Your task to perform on an android device: Go to Yahoo.com Image 0: 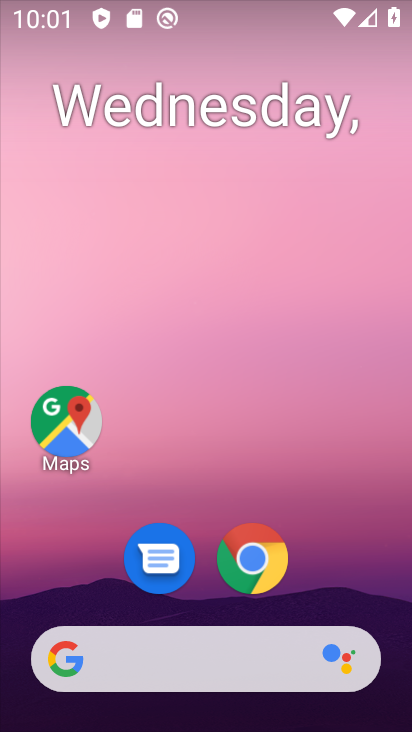
Step 0: click (192, 426)
Your task to perform on an android device: Go to Yahoo.com Image 1: 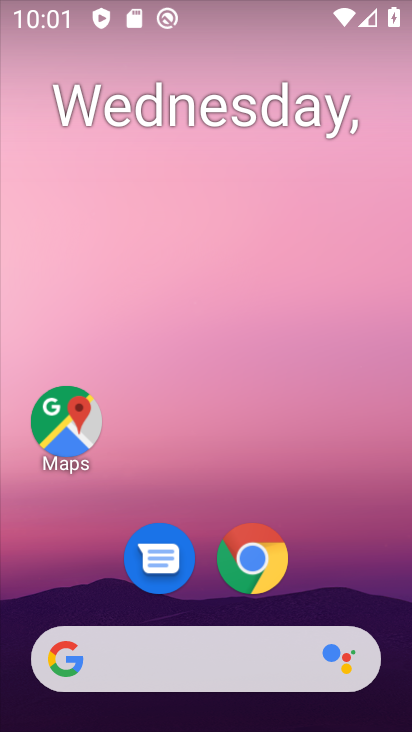
Step 1: click (252, 581)
Your task to perform on an android device: Go to Yahoo.com Image 2: 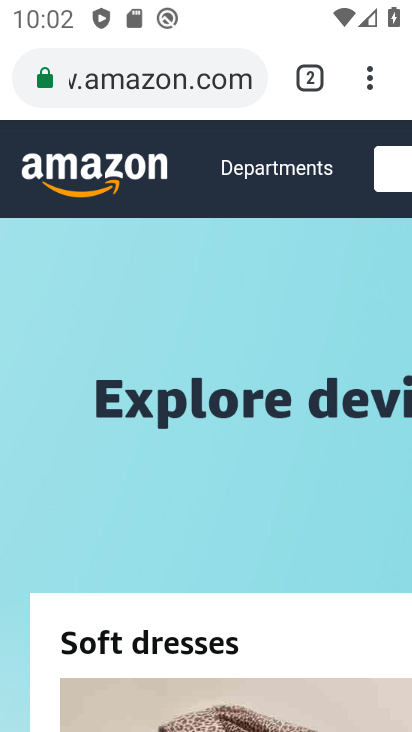
Step 2: click (310, 85)
Your task to perform on an android device: Go to Yahoo.com Image 3: 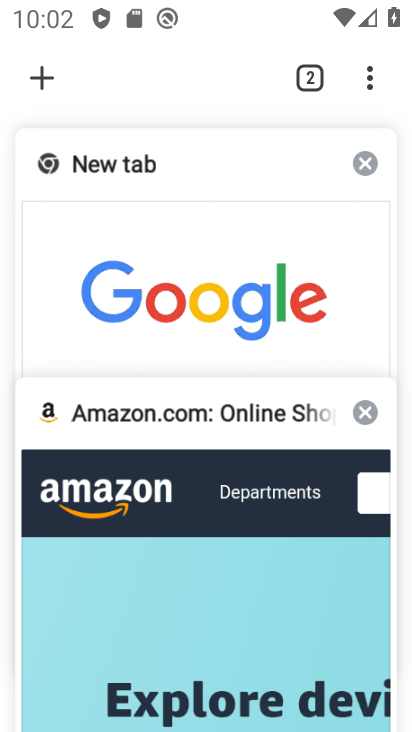
Step 3: click (365, 412)
Your task to perform on an android device: Go to Yahoo.com Image 4: 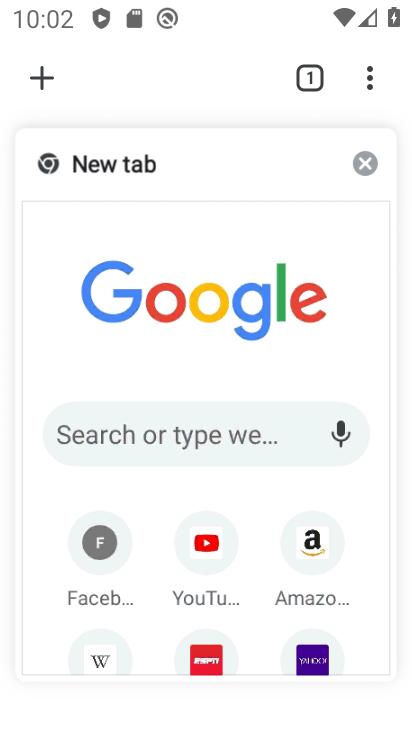
Step 4: drag from (11, 537) to (159, 199)
Your task to perform on an android device: Go to Yahoo.com Image 5: 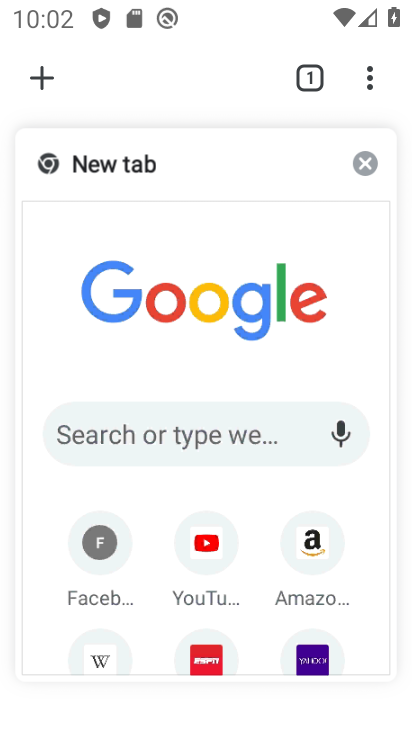
Step 5: click (289, 653)
Your task to perform on an android device: Go to Yahoo.com Image 6: 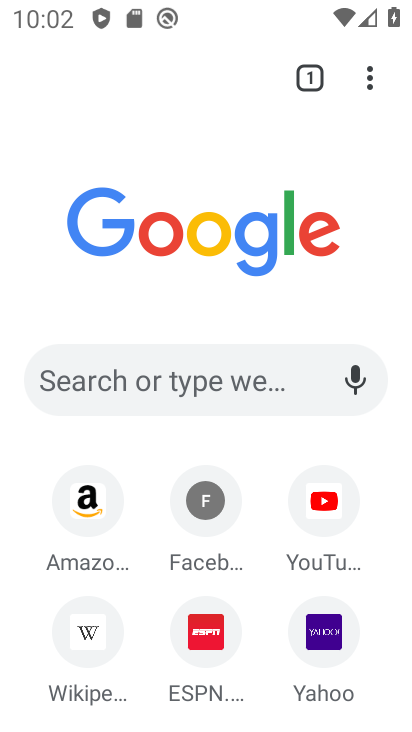
Step 6: click (303, 661)
Your task to perform on an android device: Go to Yahoo.com Image 7: 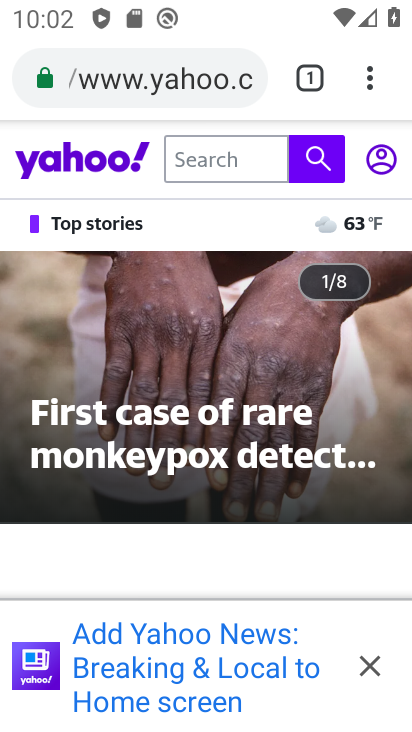
Step 7: task complete